Your task to perform on an android device: Open the calendar and show me this week's events? Image 0: 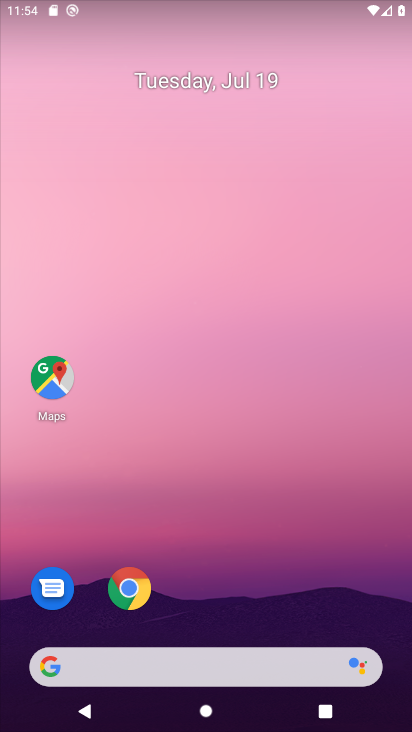
Step 0: drag from (232, 627) to (232, 96)
Your task to perform on an android device: Open the calendar and show me this week's events? Image 1: 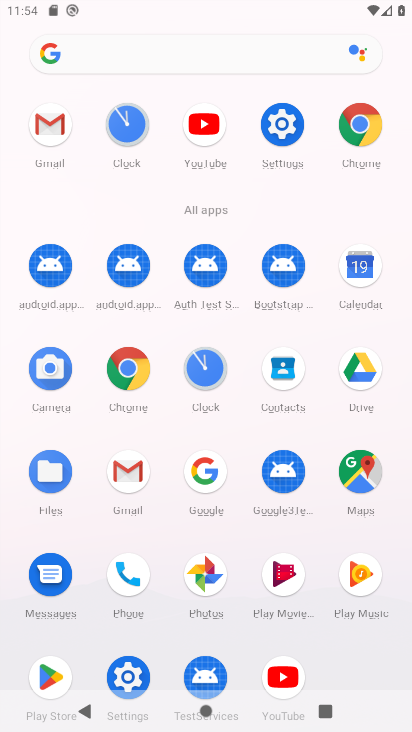
Step 1: click (356, 256)
Your task to perform on an android device: Open the calendar and show me this week's events? Image 2: 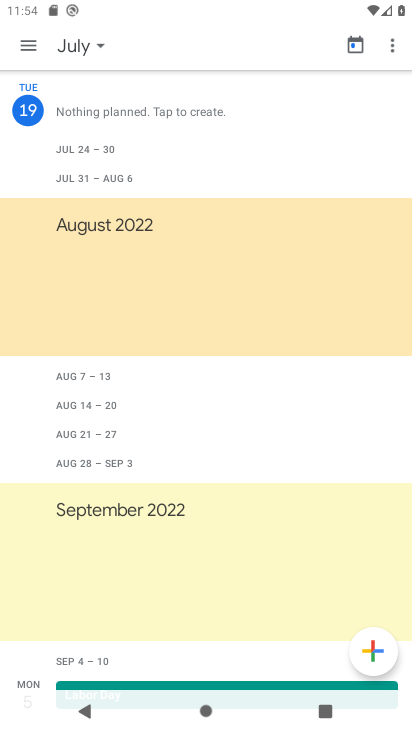
Step 2: click (27, 43)
Your task to perform on an android device: Open the calendar and show me this week's events? Image 3: 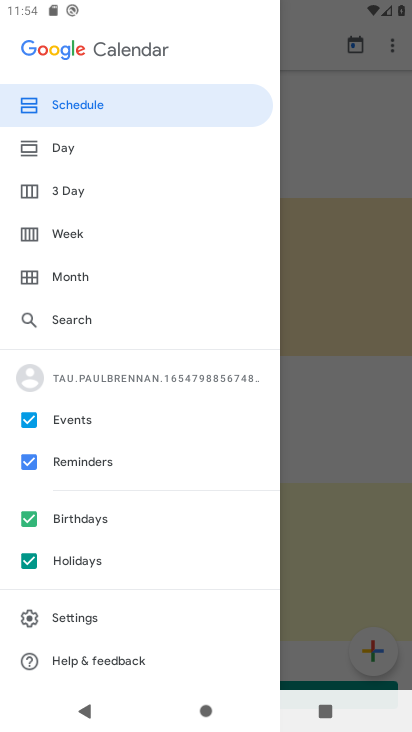
Step 3: click (60, 456)
Your task to perform on an android device: Open the calendar and show me this week's events? Image 4: 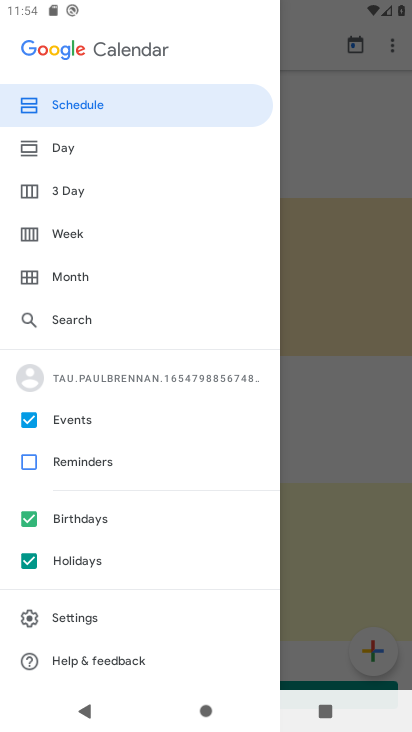
Step 4: click (82, 532)
Your task to perform on an android device: Open the calendar and show me this week's events? Image 5: 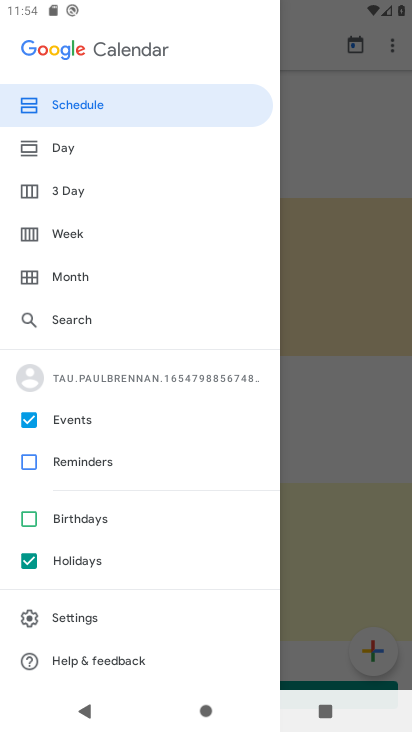
Step 5: click (71, 558)
Your task to perform on an android device: Open the calendar and show me this week's events? Image 6: 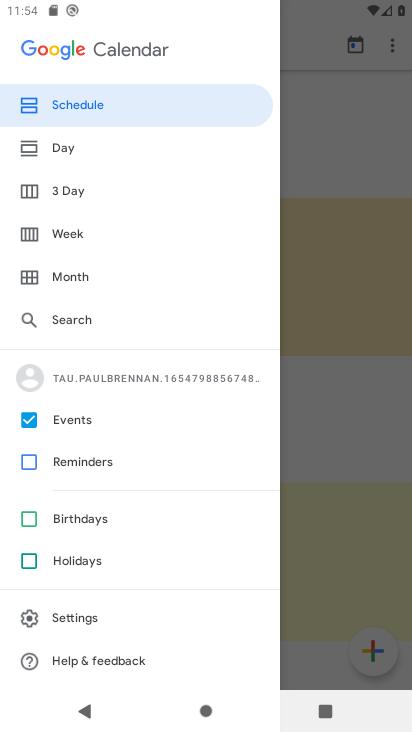
Step 6: click (72, 238)
Your task to perform on an android device: Open the calendar and show me this week's events? Image 7: 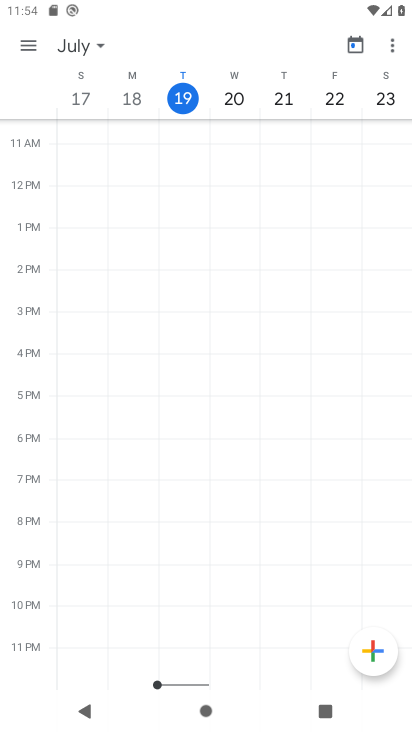
Step 7: task complete